Your task to perform on an android device: Toggle the flashlight Image 0: 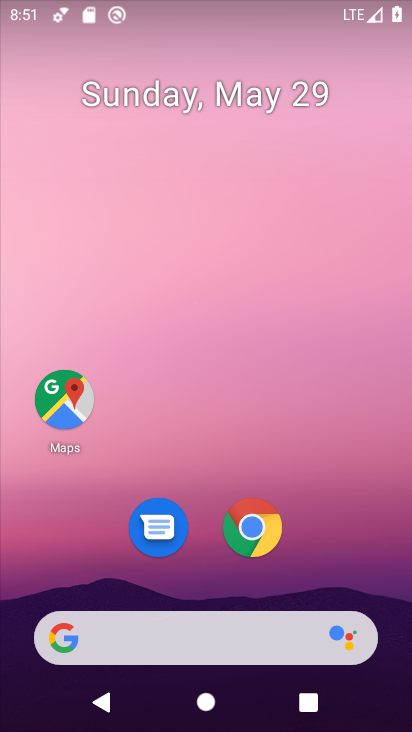
Step 0: drag from (216, 583) to (220, 11)
Your task to perform on an android device: Toggle the flashlight Image 1: 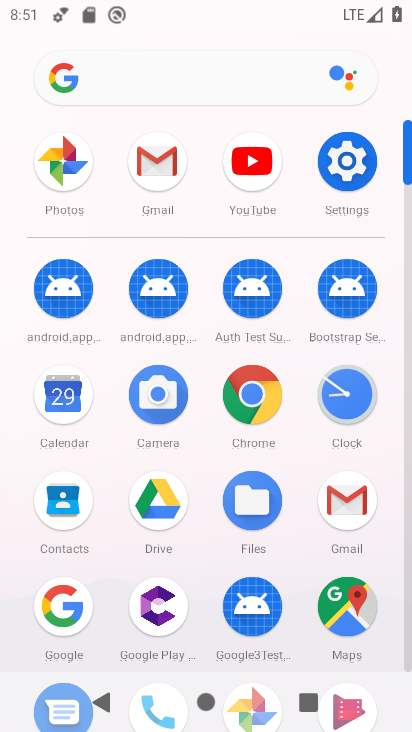
Step 1: drag from (264, 7) to (238, 640)
Your task to perform on an android device: Toggle the flashlight Image 2: 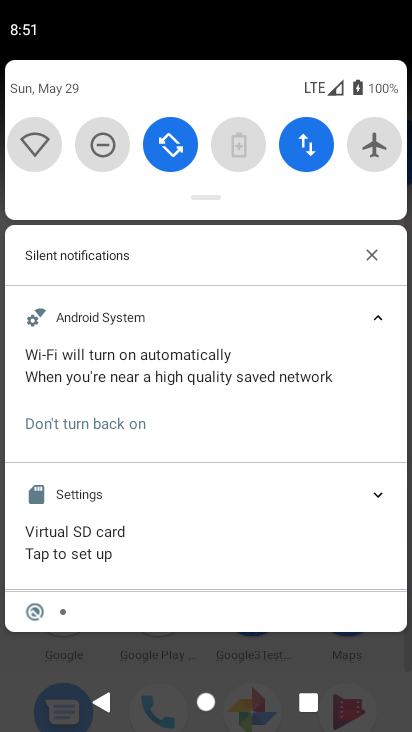
Step 2: drag from (242, 670) to (246, 198)
Your task to perform on an android device: Toggle the flashlight Image 3: 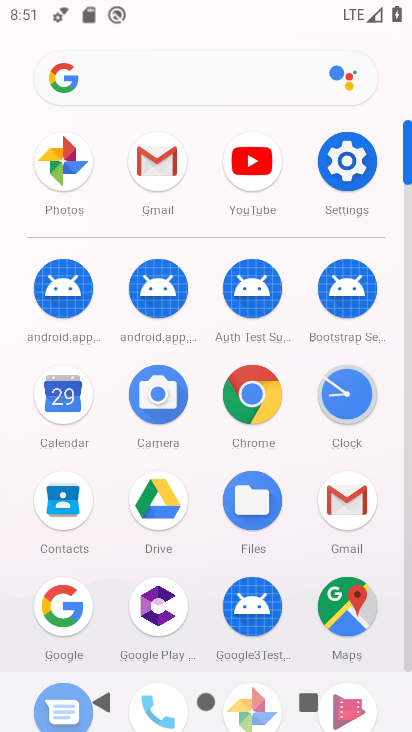
Step 3: click (348, 152)
Your task to perform on an android device: Toggle the flashlight Image 4: 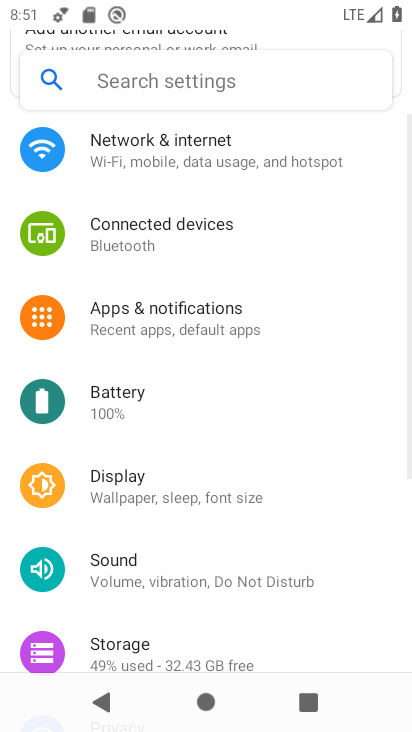
Step 4: click (120, 81)
Your task to perform on an android device: Toggle the flashlight Image 5: 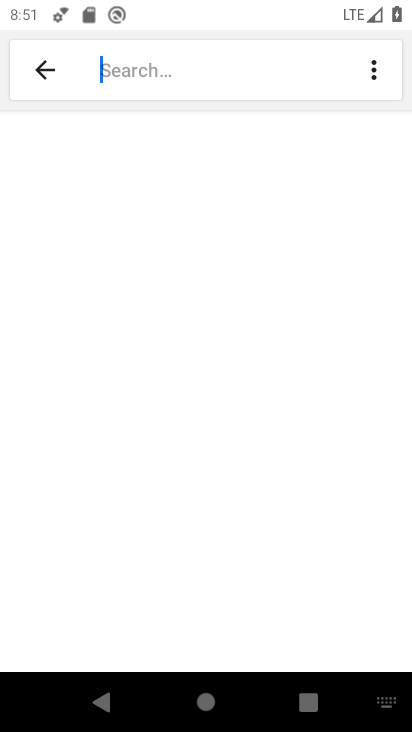
Step 5: type "flashlight"
Your task to perform on an android device: Toggle the flashlight Image 6: 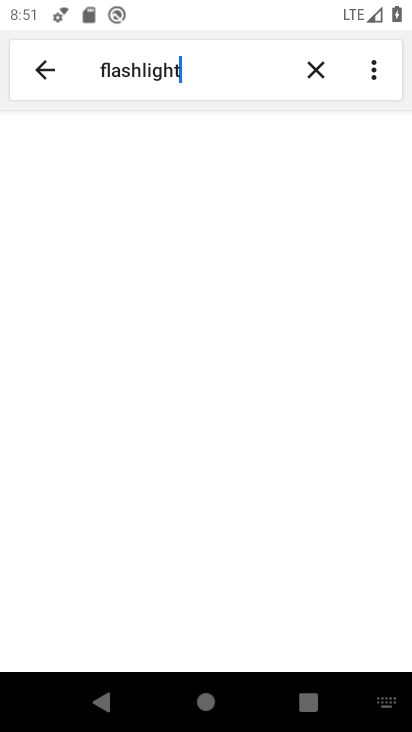
Step 6: type ""
Your task to perform on an android device: Toggle the flashlight Image 7: 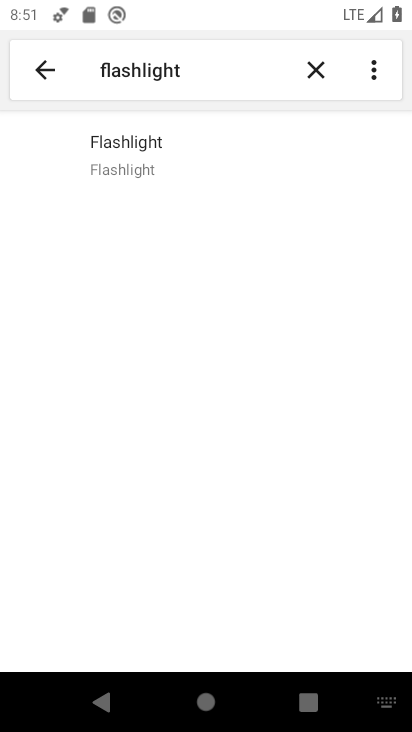
Step 7: click (169, 151)
Your task to perform on an android device: Toggle the flashlight Image 8: 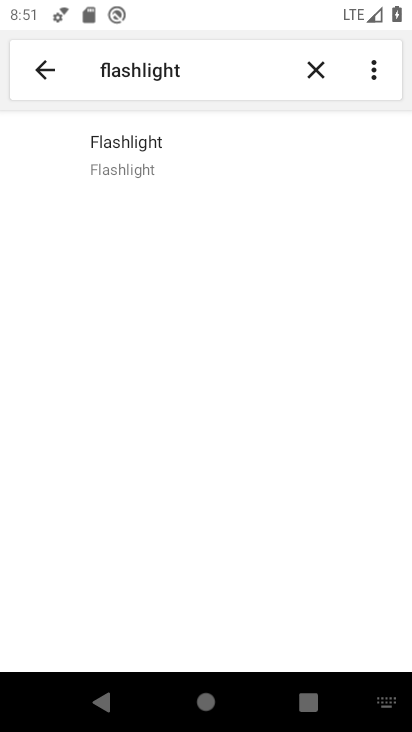
Step 8: click (169, 153)
Your task to perform on an android device: Toggle the flashlight Image 9: 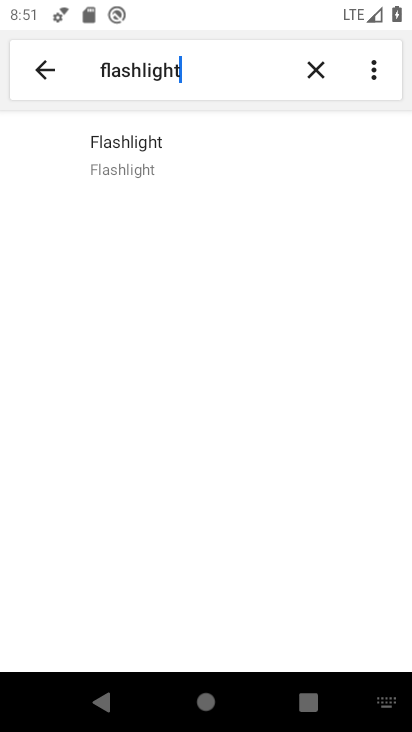
Step 9: task complete